Your task to perform on an android device: Check the news Image 0: 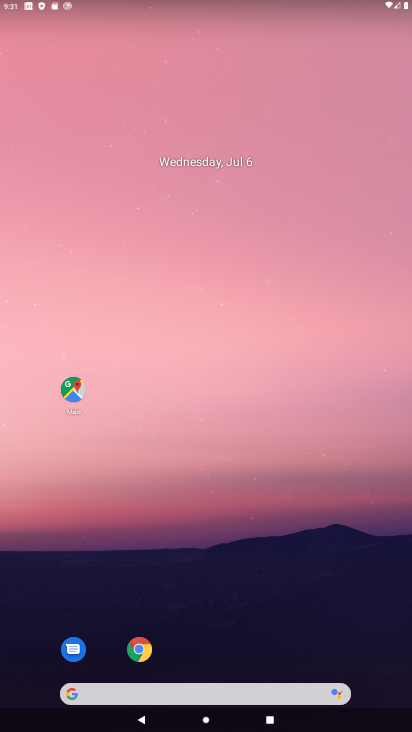
Step 0: drag from (241, 696) to (264, 151)
Your task to perform on an android device: Check the news Image 1: 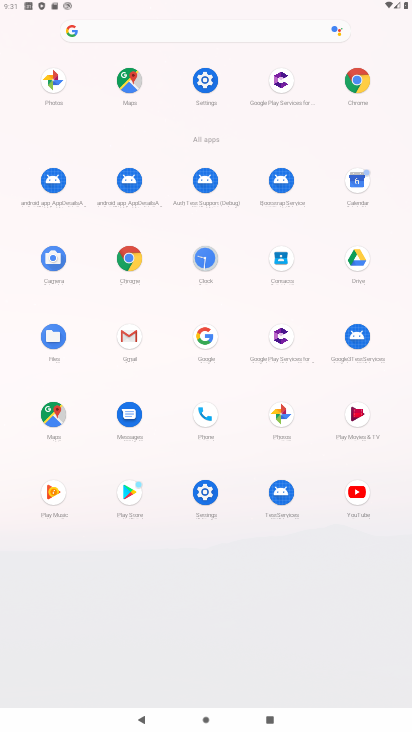
Step 1: click (205, 334)
Your task to perform on an android device: Check the news Image 2: 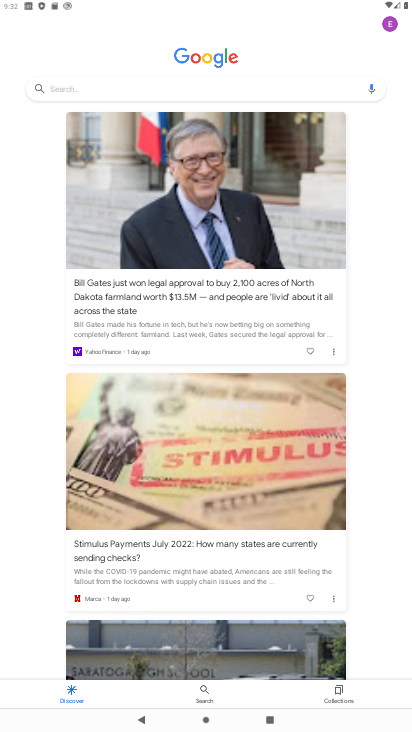
Step 2: task complete